Your task to perform on an android device: find which apps use the phone's location Image 0: 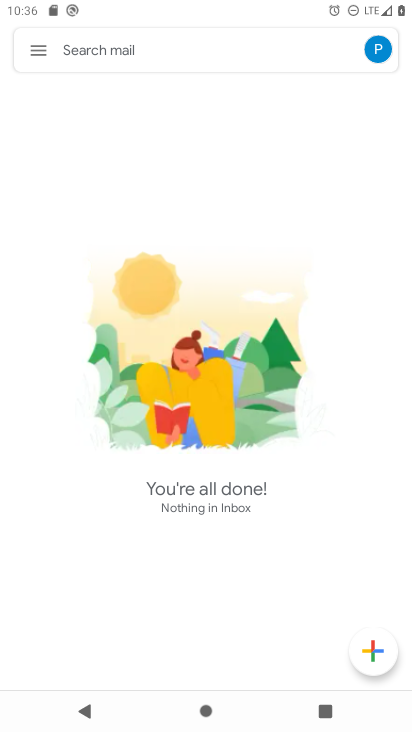
Step 0: press home button
Your task to perform on an android device: find which apps use the phone's location Image 1: 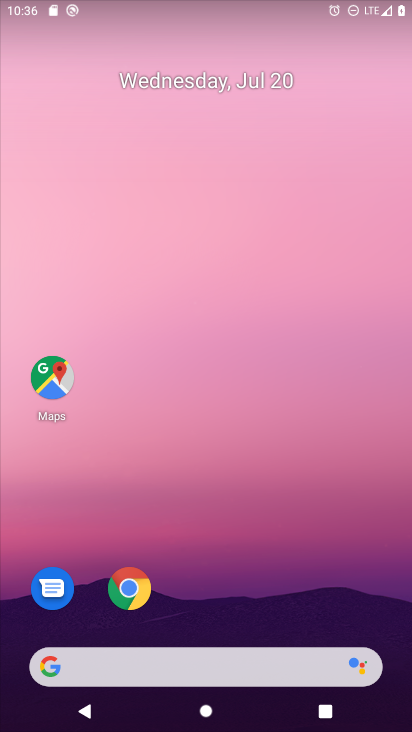
Step 1: drag from (215, 634) to (247, 200)
Your task to perform on an android device: find which apps use the phone's location Image 2: 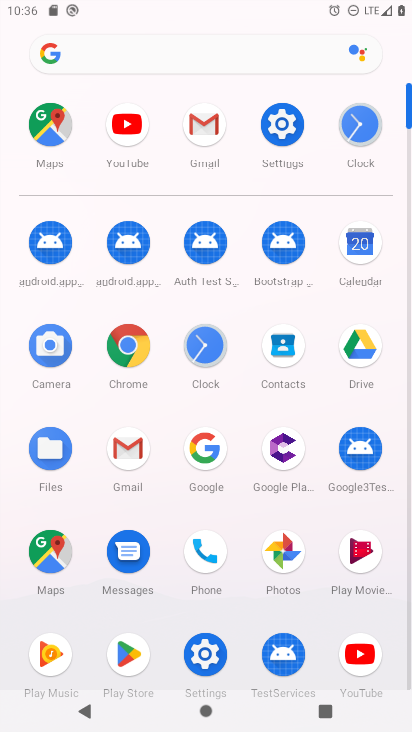
Step 2: click (281, 129)
Your task to perform on an android device: find which apps use the phone's location Image 3: 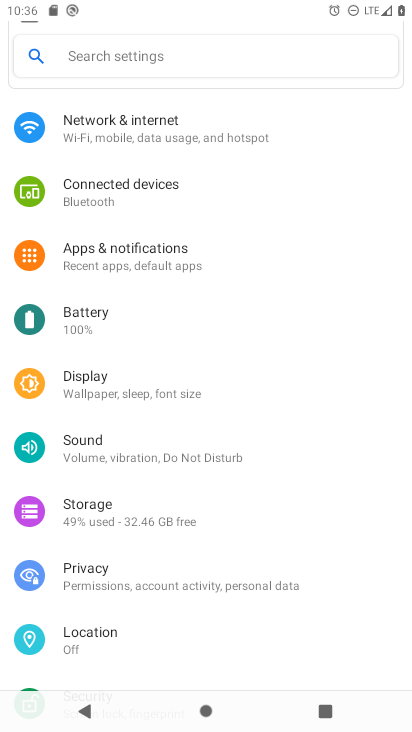
Step 3: click (98, 654)
Your task to perform on an android device: find which apps use the phone's location Image 4: 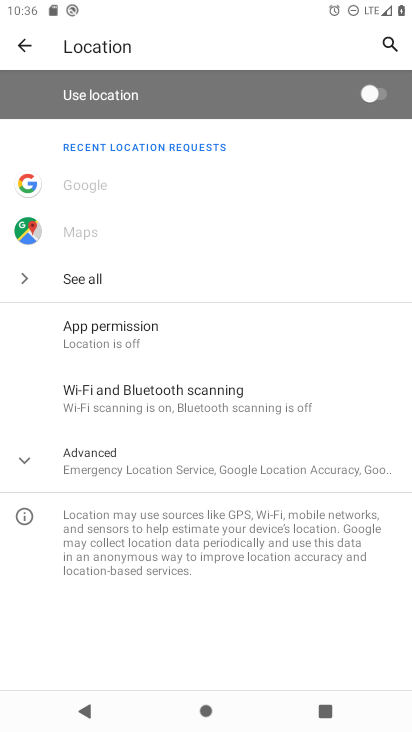
Step 4: click (93, 292)
Your task to perform on an android device: find which apps use the phone's location Image 5: 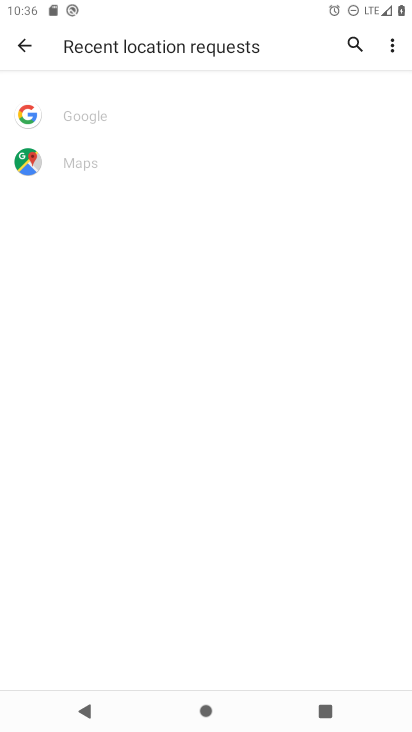
Step 5: task complete